Your task to perform on an android device: add a contact in the contacts app Image 0: 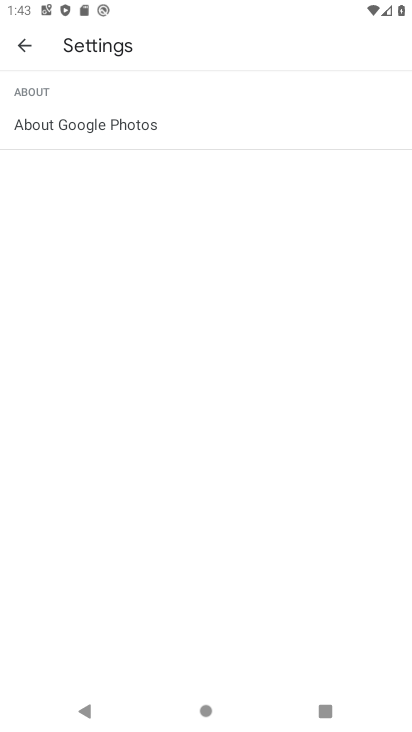
Step 0: press home button
Your task to perform on an android device: add a contact in the contacts app Image 1: 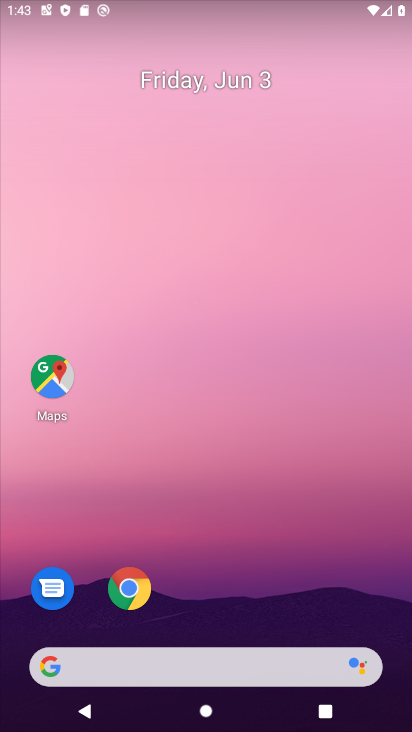
Step 1: drag from (54, 580) to (321, 185)
Your task to perform on an android device: add a contact in the contacts app Image 2: 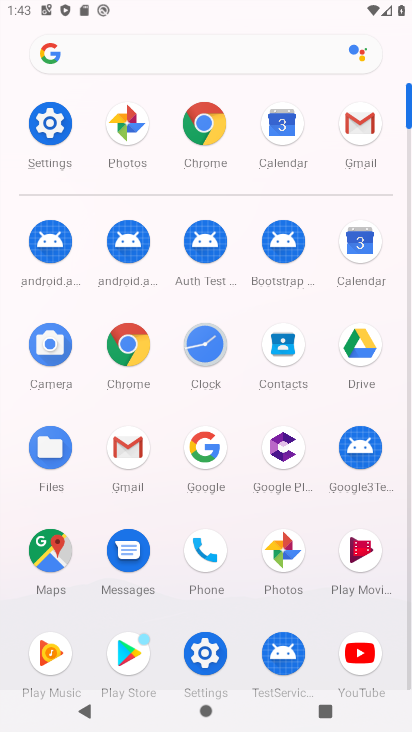
Step 2: click (190, 540)
Your task to perform on an android device: add a contact in the contacts app Image 3: 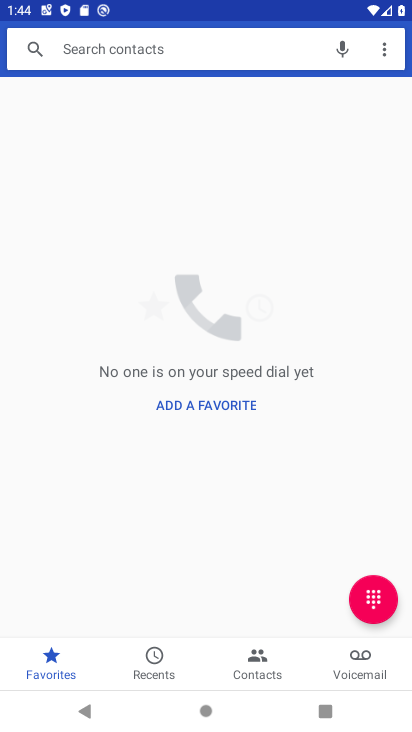
Step 3: click (157, 659)
Your task to perform on an android device: add a contact in the contacts app Image 4: 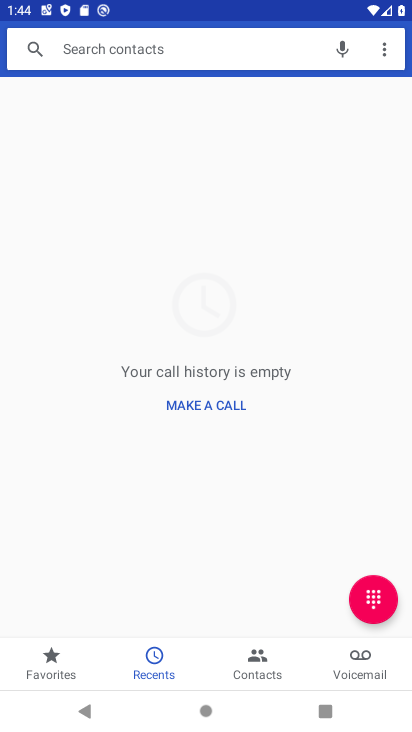
Step 4: click (247, 660)
Your task to perform on an android device: add a contact in the contacts app Image 5: 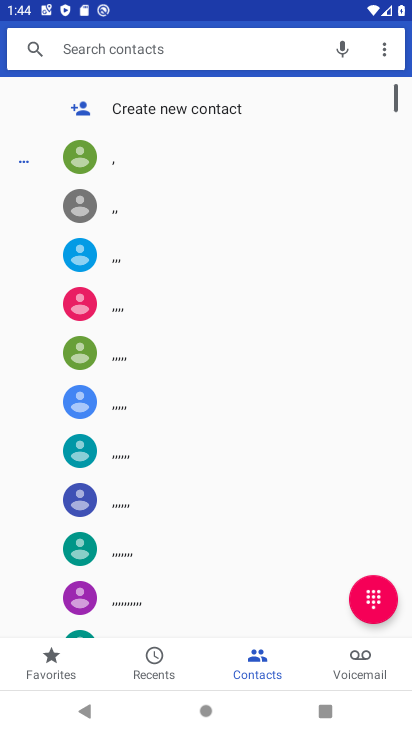
Step 5: click (248, 111)
Your task to perform on an android device: add a contact in the contacts app Image 6: 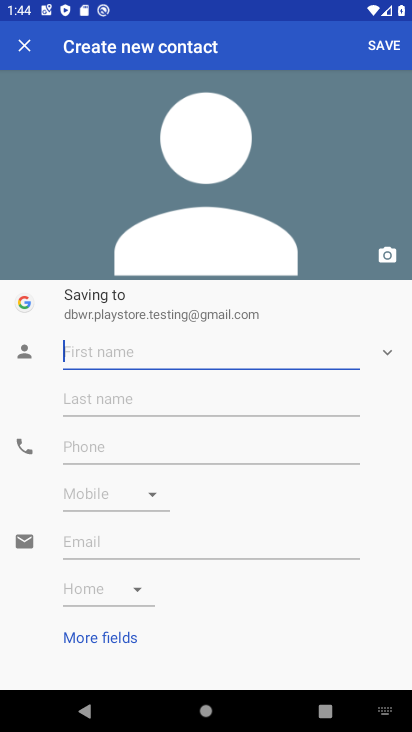
Step 6: click (128, 348)
Your task to perform on an android device: add a contact in the contacts app Image 7: 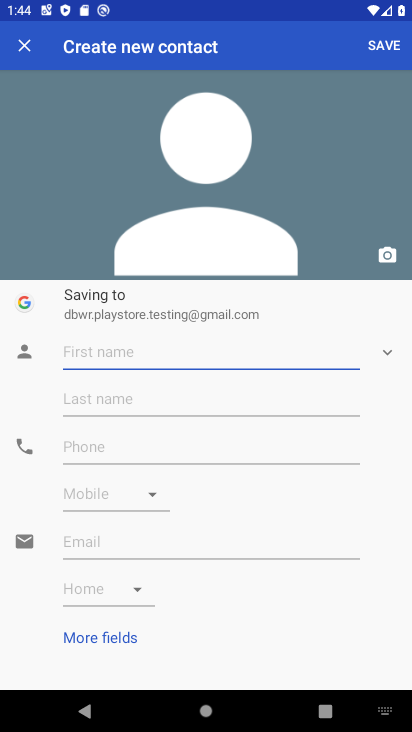
Step 7: type "ggtgtgt"
Your task to perform on an android device: add a contact in the contacts app Image 8: 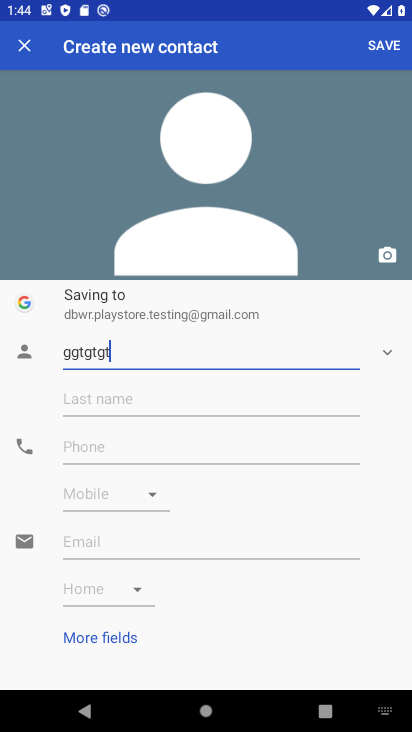
Step 8: type ""
Your task to perform on an android device: add a contact in the contacts app Image 9: 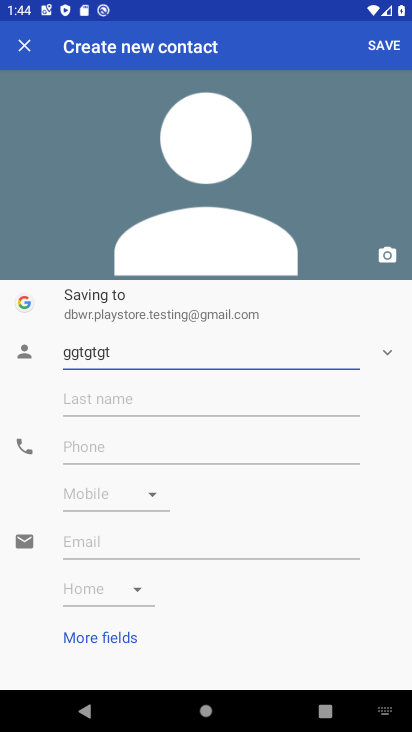
Step 9: click (377, 40)
Your task to perform on an android device: add a contact in the contacts app Image 10: 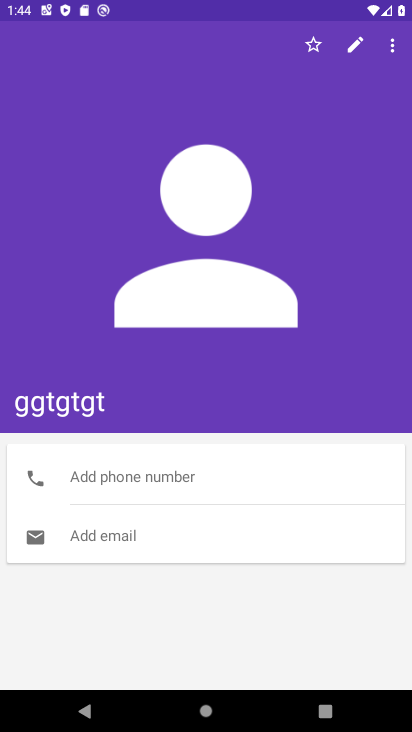
Step 10: task complete